Your task to perform on an android device: Go to Amazon Image 0: 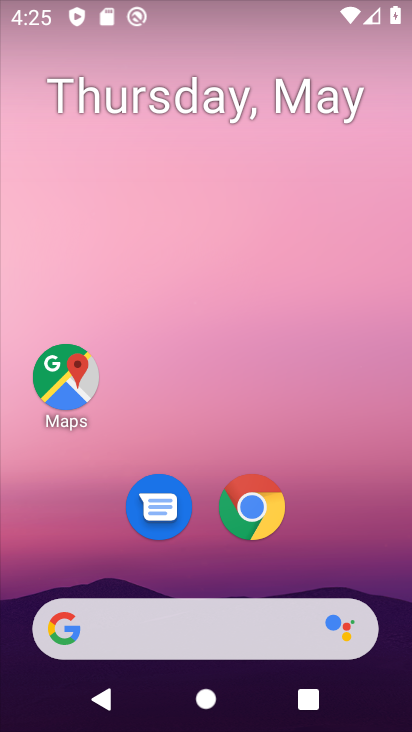
Step 0: drag from (341, 597) to (160, 116)
Your task to perform on an android device: Go to Amazon Image 1: 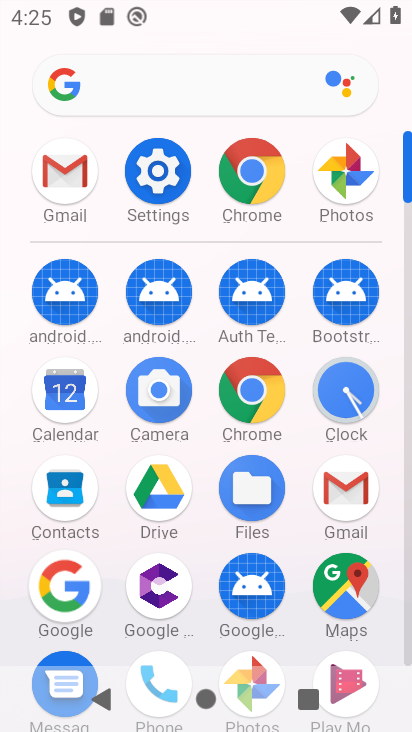
Step 1: drag from (247, 477) to (158, 109)
Your task to perform on an android device: Go to Amazon Image 2: 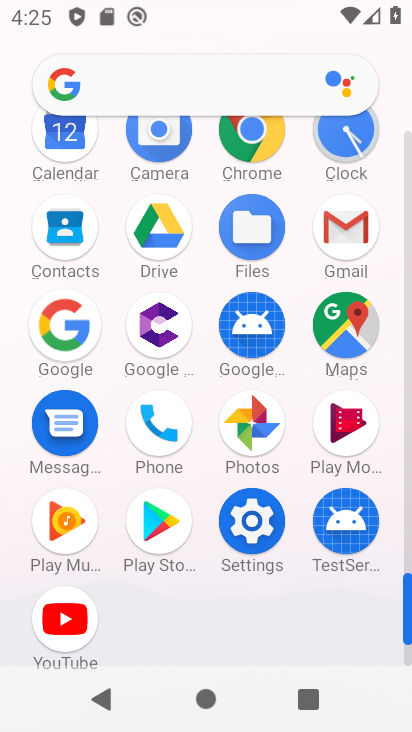
Step 2: drag from (184, 472) to (195, 154)
Your task to perform on an android device: Go to Amazon Image 3: 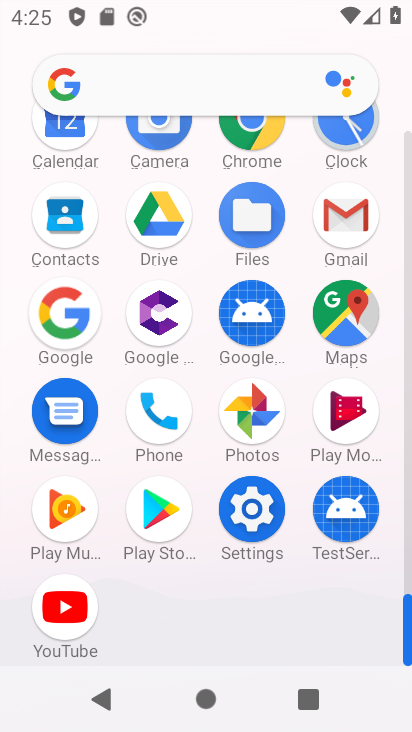
Step 3: drag from (194, 360) to (198, 582)
Your task to perform on an android device: Go to Amazon Image 4: 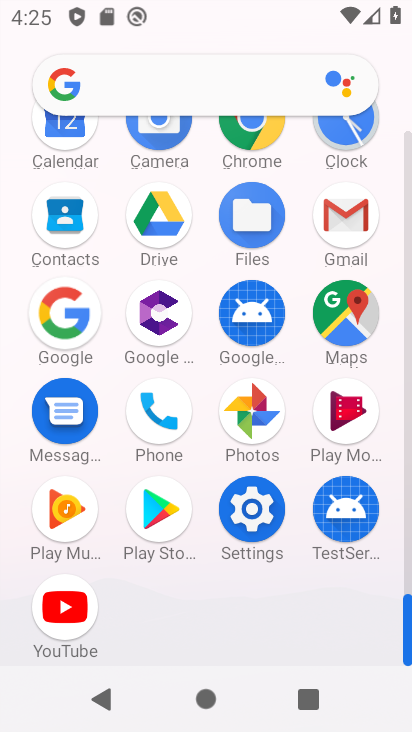
Step 4: drag from (220, 265) to (221, 455)
Your task to perform on an android device: Go to Amazon Image 5: 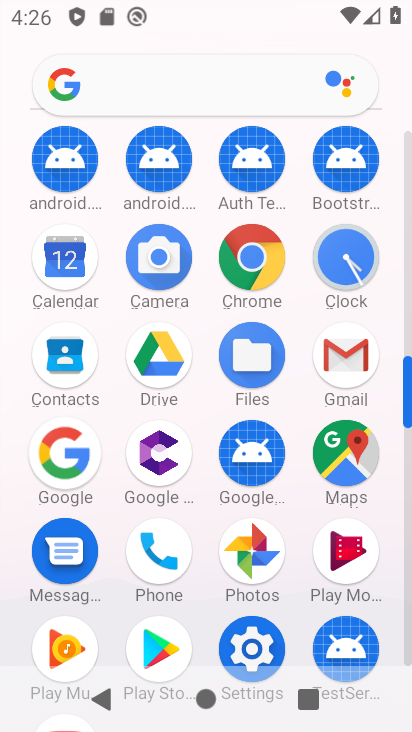
Step 5: drag from (224, 257) to (224, 486)
Your task to perform on an android device: Go to Amazon Image 6: 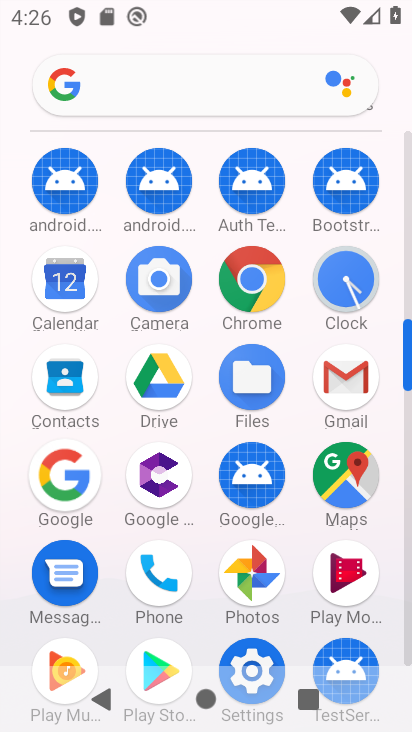
Step 6: click (209, 518)
Your task to perform on an android device: Go to Amazon Image 7: 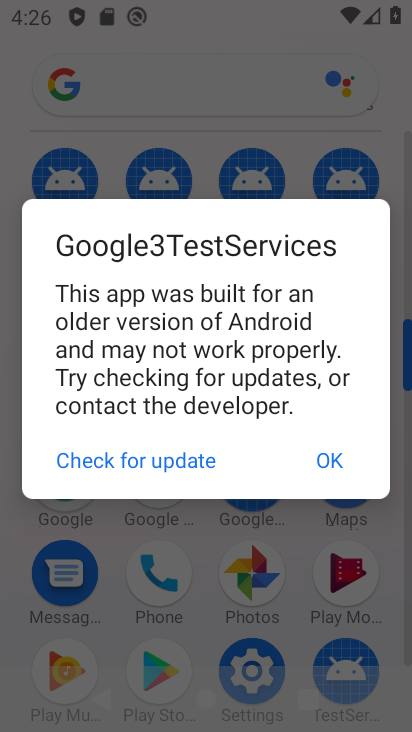
Step 7: click (250, 289)
Your task to perform on an android device: Go to Amazon Image 8: 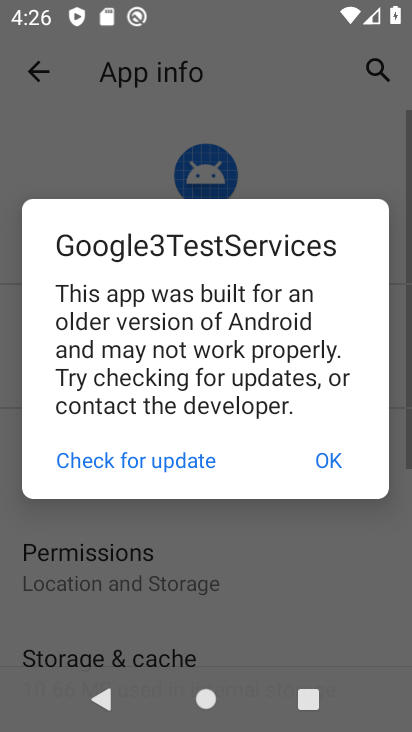
Step 8: click (309, 457)
Your task to perform on an android device: Go to Amazon Image 9: 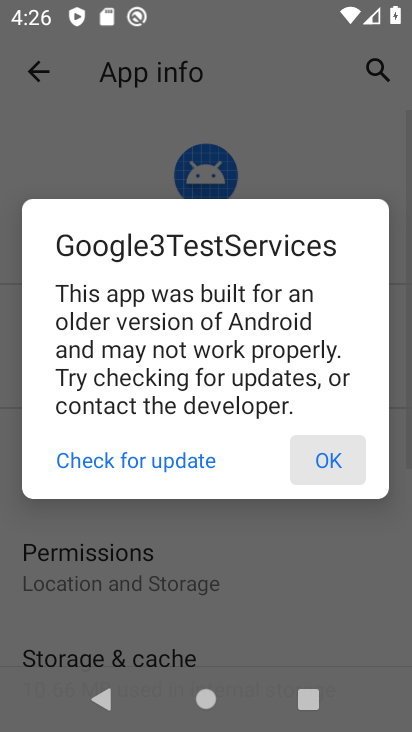
Step 9: click (318, 454)
Your task to perform on an android device: Go to Amazon Image 10: 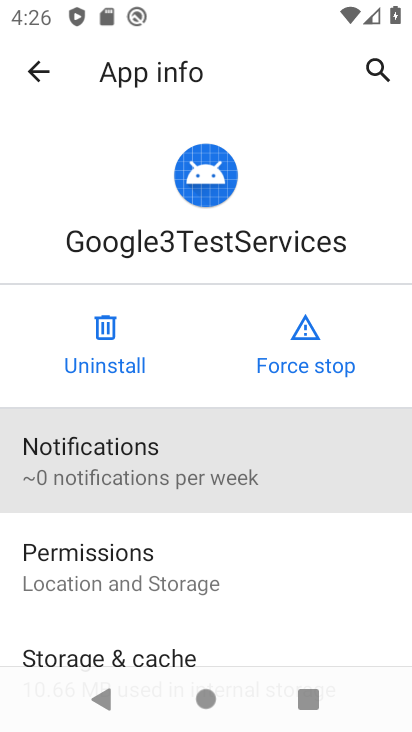
Step 10: click (326, 447)
Your task to perform on an android device: Go to Amazon Image 11: 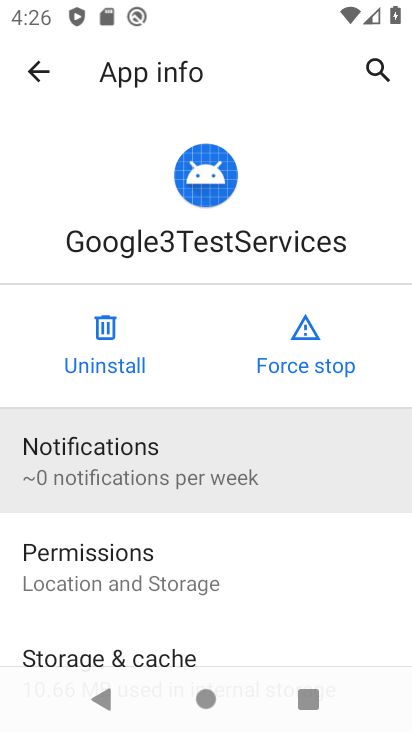
Step 11: click (332, 440)
Your task to perform on an android device: Go to Amazon Image 12: 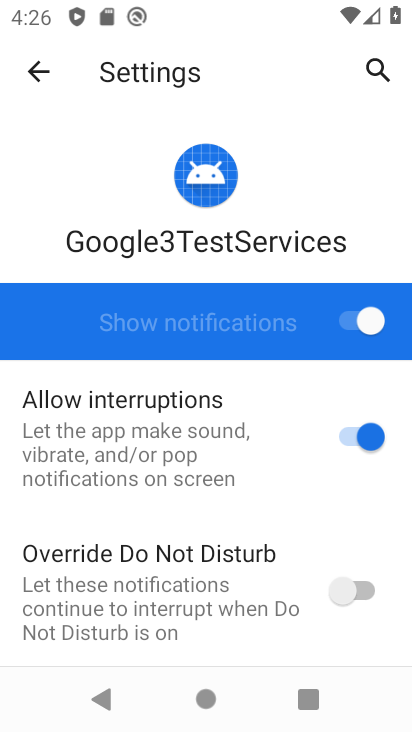
Step 12: click (44, 67)
Your task to perform on an android device: Go to Amazon Image 13: 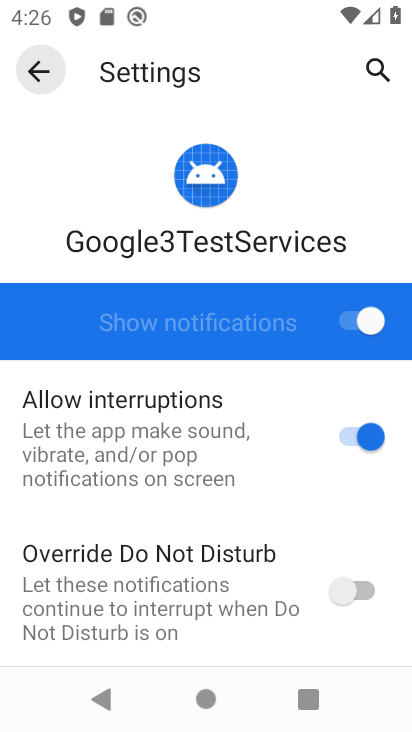
Step 13: click (42, 67)
Your task to perform on an android device: Go to Amazon Image 14: 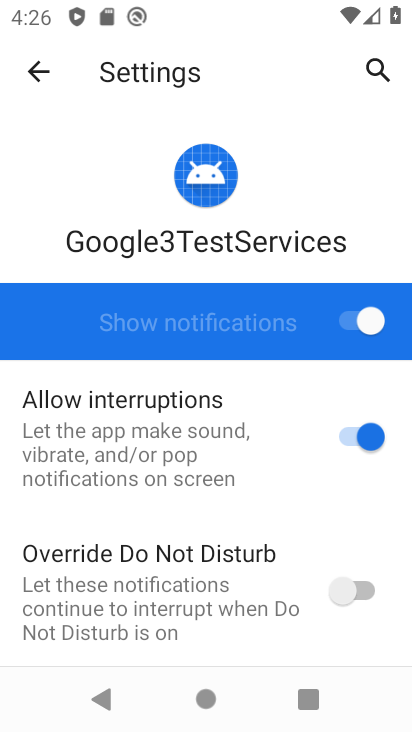
Step 14: click (43, 68)
Your task to perform on an android device: Go to Amazon Image 15: 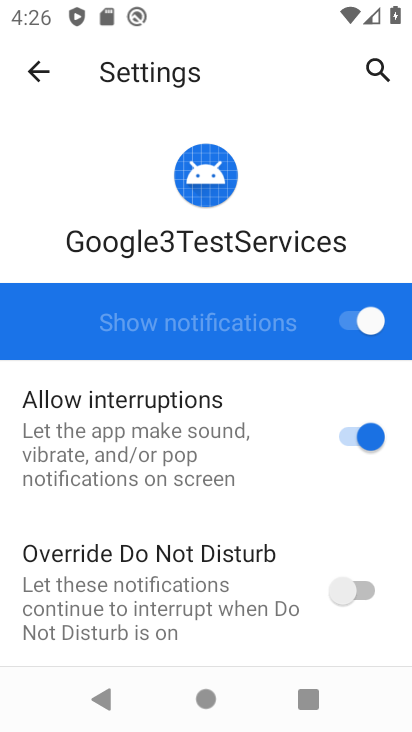
Step 15: click (43, 68)
Your task to perform on an android device: Go to Amazon Image 16: 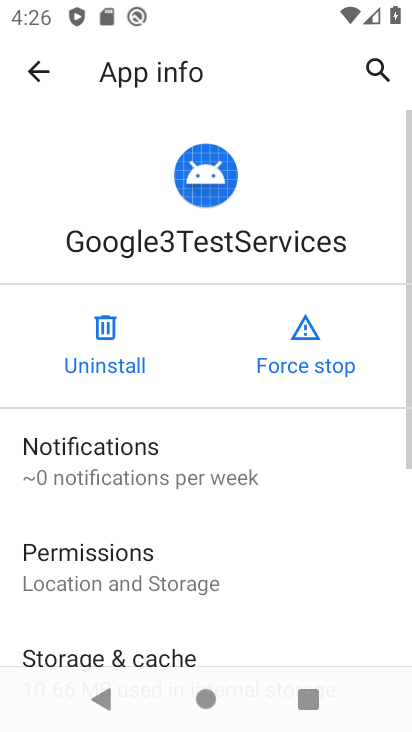
Step 16: click (32, 77)
Your task to perform on an android device: Go to Amazon Image 17: 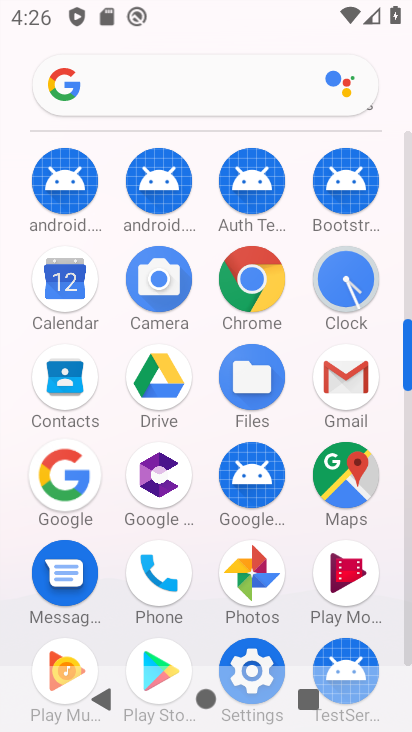
Step 17: click (253, 278)
Your task to perform on an android device: Go to Amazon Image 18: 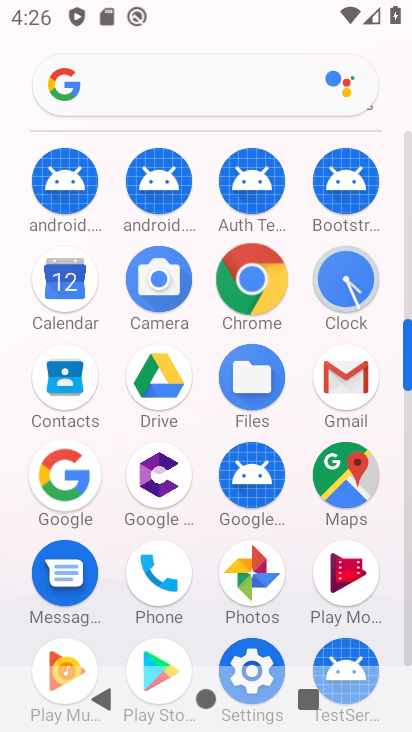
Step 18: click (253, 278)
Your task to perform on an android device: Go to Amazon Image 19: 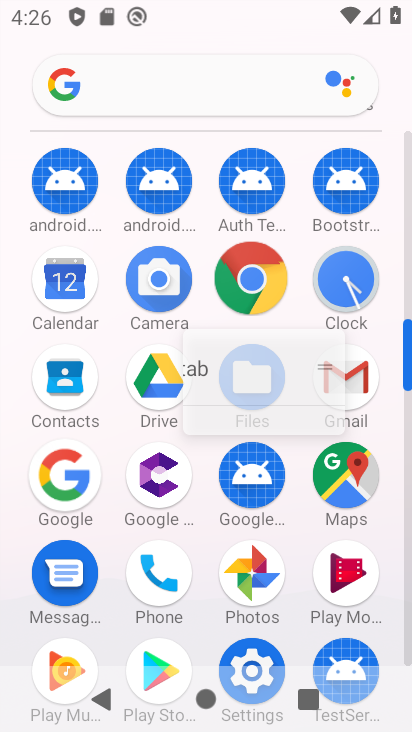
Step 19: click (251, 279)
Your task to perform on an android device: Go to Amazon Image 20: 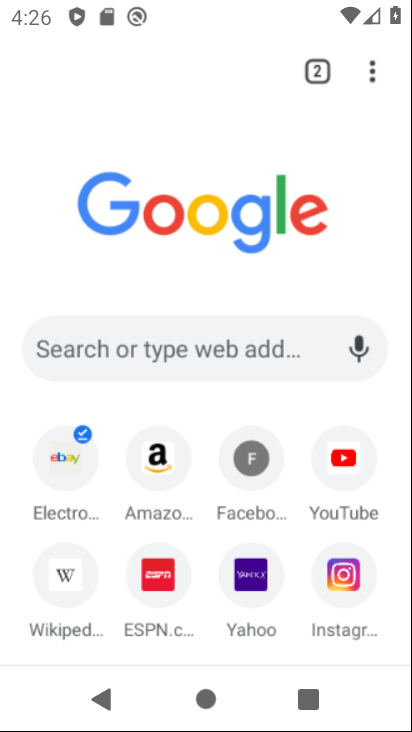
Step 20: click (251, 279)
Your task to perform on an android device: Go to Amazon Image 21: 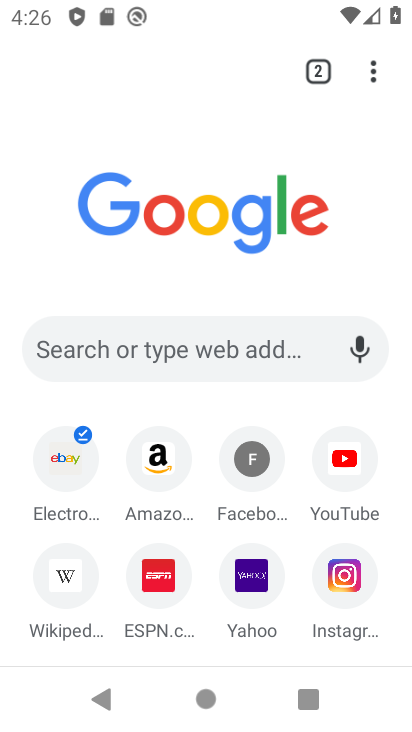
Step 21: click (168, 455)
Your task to perform on an android device: Go to Amazon Image 22: 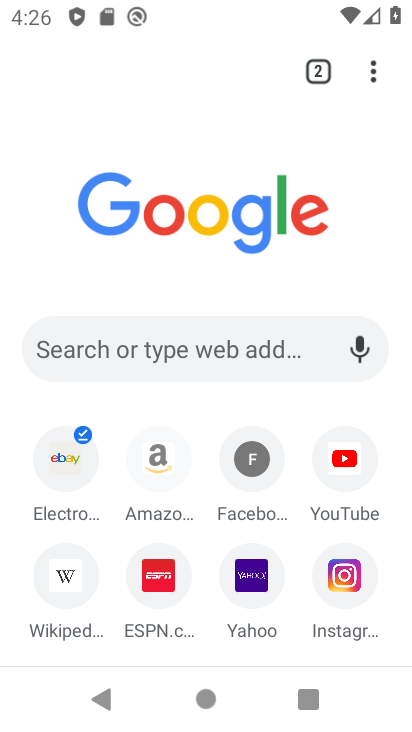
Step 22: click (175, 455)
Your task to perform on an android device: Go to Amazon Image 23: 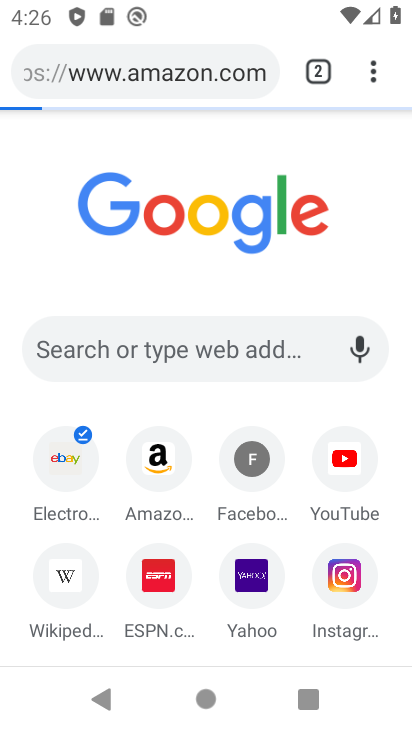
Step 23: click (177, 455)
Your task to perform on an android device: Go to Amazon Image 24: 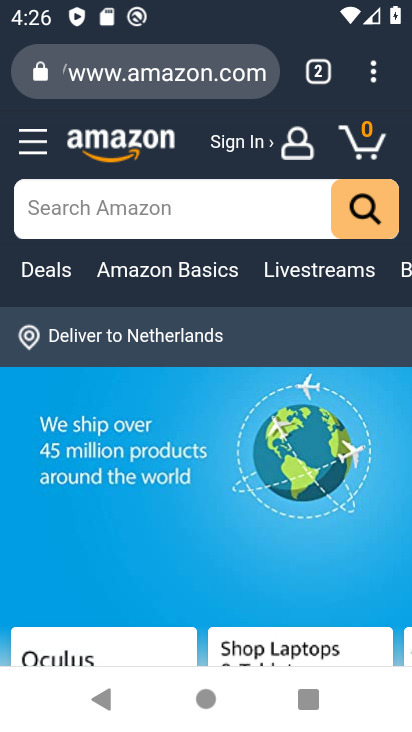
Step 24: drag from (177, 517) to (179, 162)
Your task to perform on an android device: Go to Amazon Image 25: 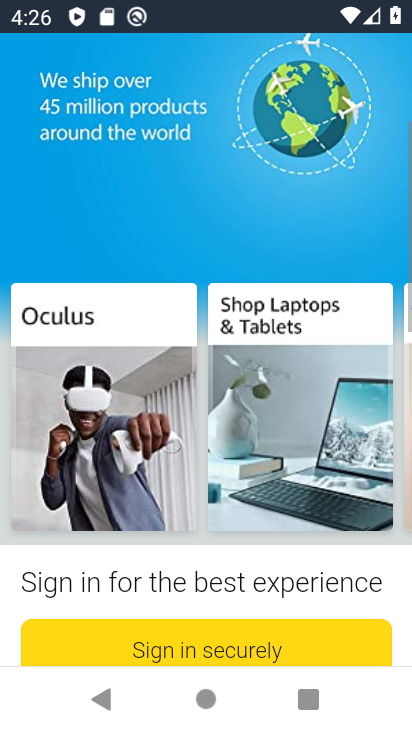
Step 25: drag from (196, 329) to (193, 152)
Your task to perform on an android device: Go to Amazon Image 26: 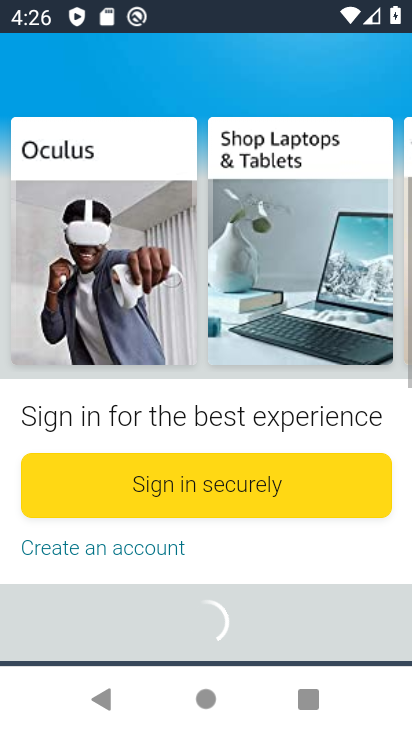
Step 26: drag from (201, 349) to (191, 229)
Your task to perform on an android device: Go to Amazon Image 27: 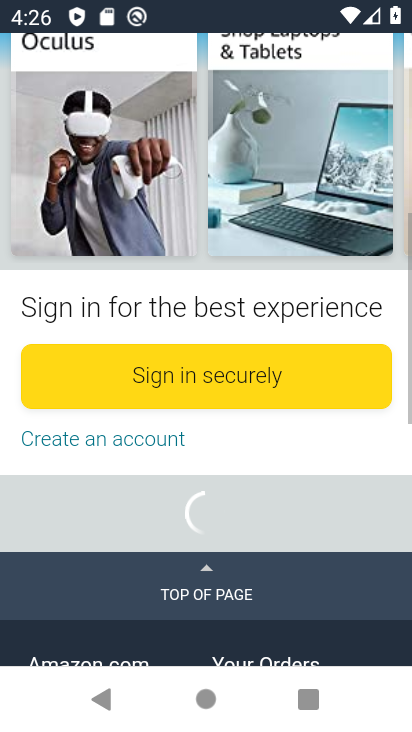
Step 27: drag from (189, 191) to (204, 491)
Your task to perform on an android device: Go to Amazon Image 28: 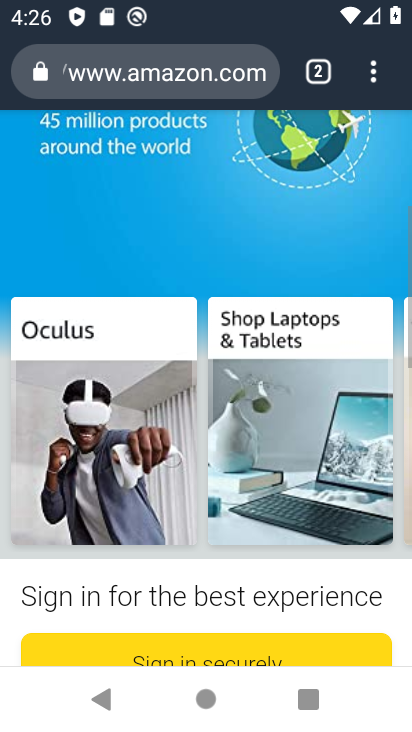
Step 28: drag from (175, 236) to (181, 462)
Your task to perform on an android device: Go to Amazon Image 29: 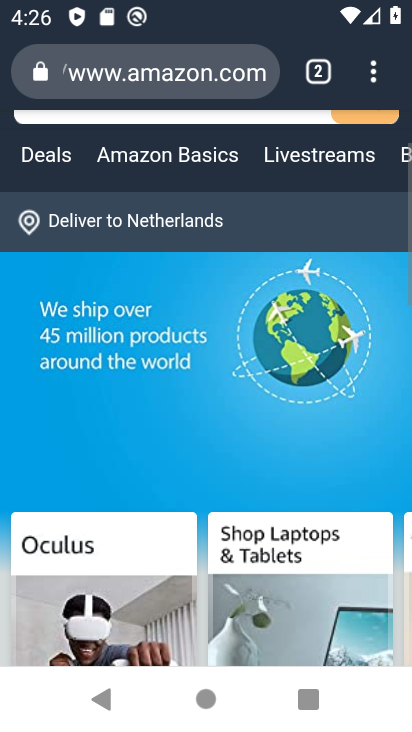
Step 29: drag from (220, 437) to (242, 600)
Your task to perform on an android device: Go to Amazon Image 30: 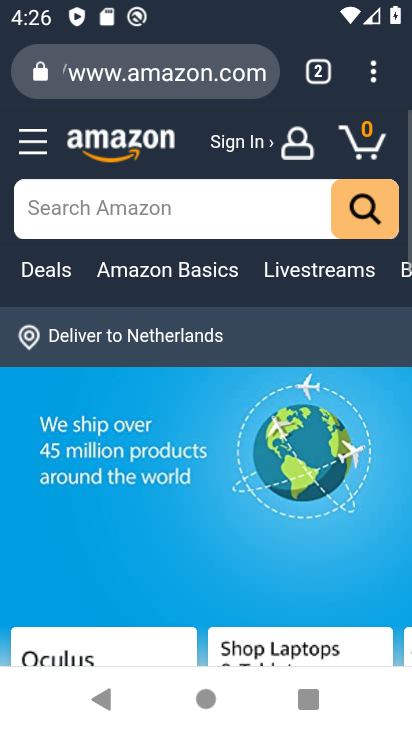
Step 30: click (233, 490)
Your task to perform on an android device: Go to Amazon Image 31: 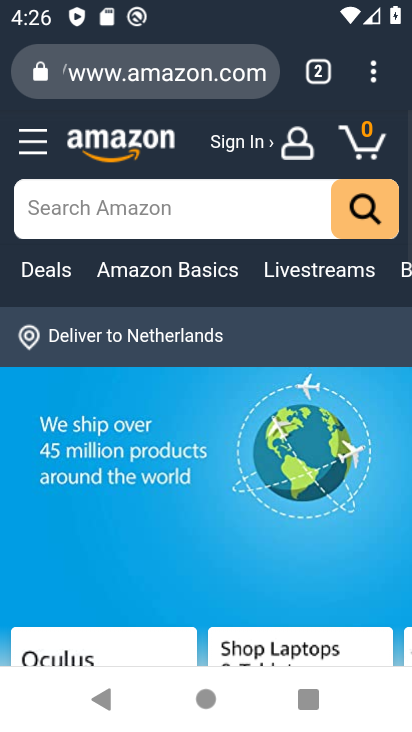
Step 31: task complete